Your task to perform on an android device: Go to Google Image 0: 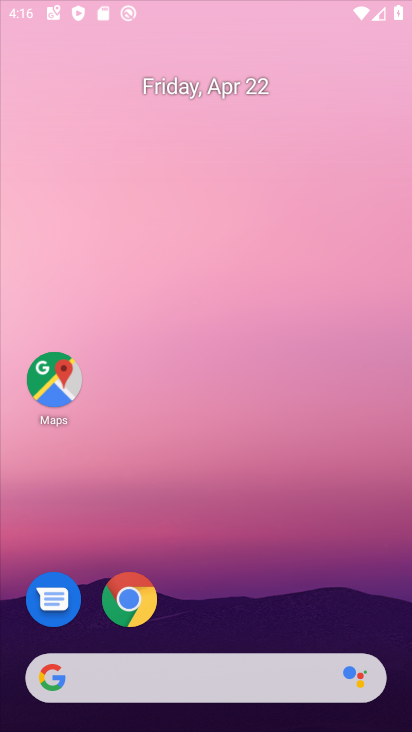
Step 0: click (403, 625)
Your task to perform on an android device: Go to Google Image 1: 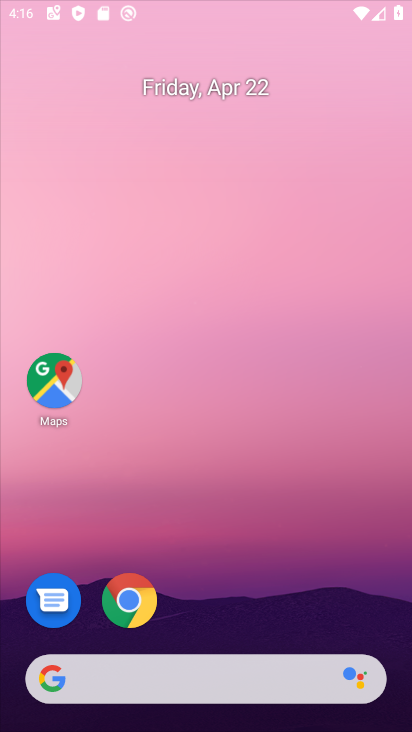
Step 1: press home button
Your task to perform on an android device: Go to Google Image 2: 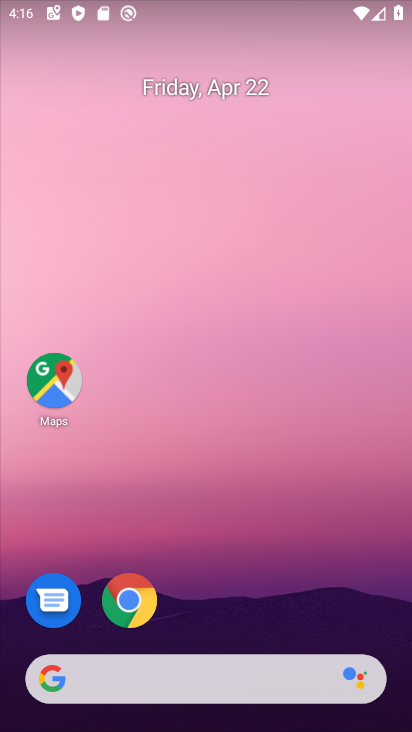
Step 2: drag from (150, 663) to (228, 117)
Your task to perform on an android device: Go to Google Image 3: 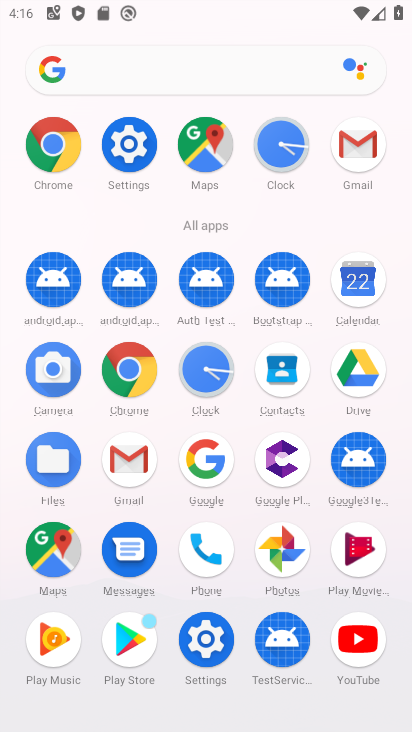
Step 3: click (201, 482)
Your task to perform on an android device: Go to Google Image 4: 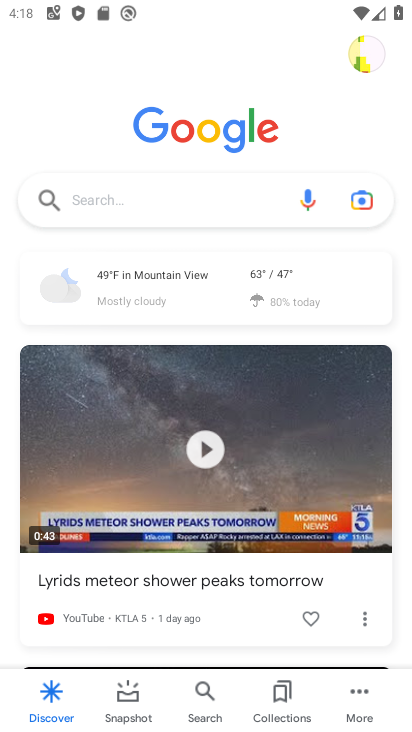
Step 4: task complete